Your task to perform on an android device: turn off priority inbox in the gmail app Image 0: 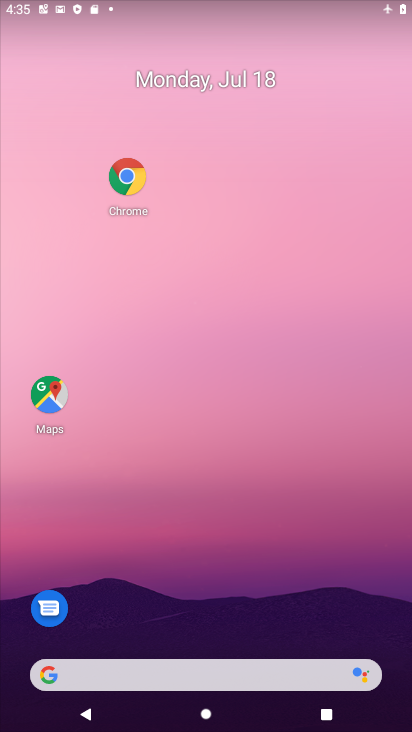
Step 0: drag from (265, 584) to (339, 383)
Your task to perform on an android device: turn off priority inbox in the gmail app Image 1: 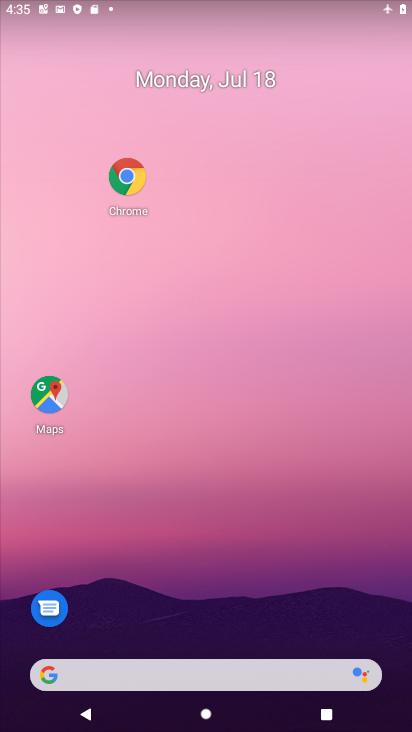
Step 1: click (305, 168)
Your task to perform on an android device: turn off priority inbox in the gmail app Image 2: 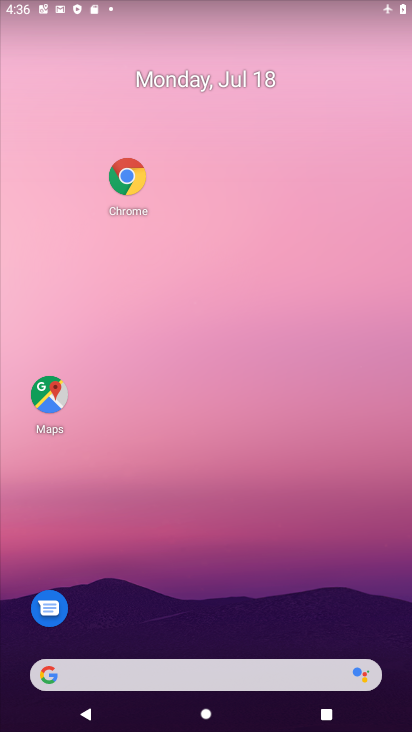
Step 2: drag from (255, 471) to (333, 58)
Your task to perform on an android device: turn off priority inbox in the gmail app Image 3: 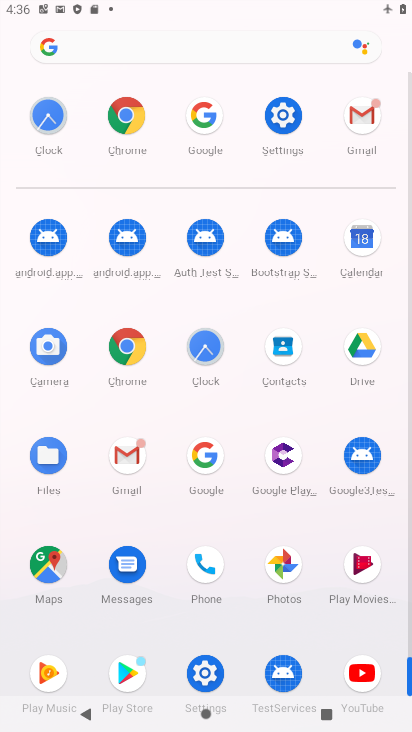
Step 3: click (359, 142)
Your task to perform on an android device: turn off priority inbox in the gmail app Image 4: 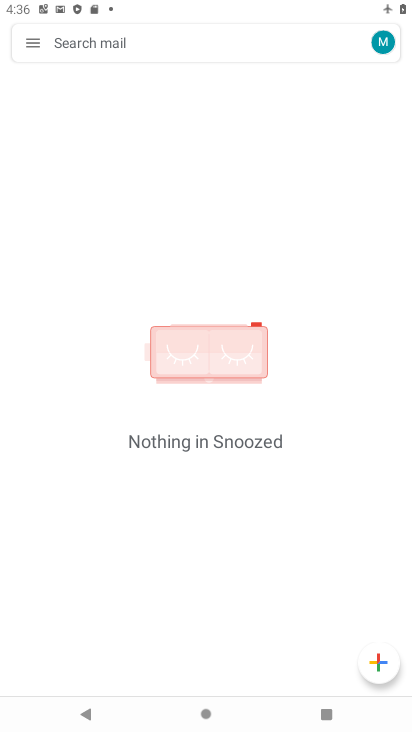
Step 4: click (28, 43)
Your task to perform on an android device: turn off priority inbox in the gmail app Image 5: 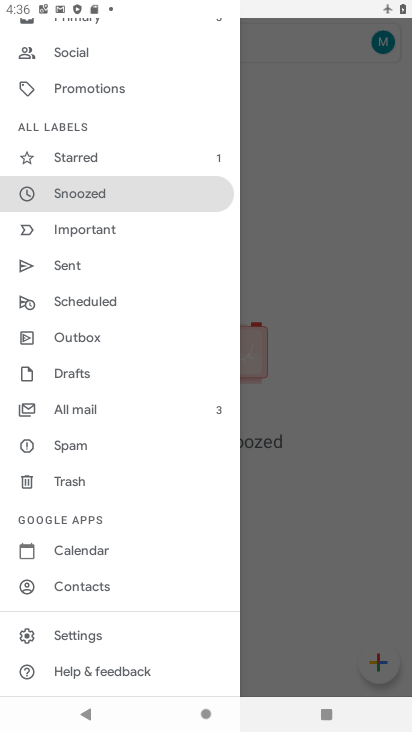
Step 5: click (86, 640)
Your task to perform on an android device: turn off priority inbox in the gmail app Image 6: 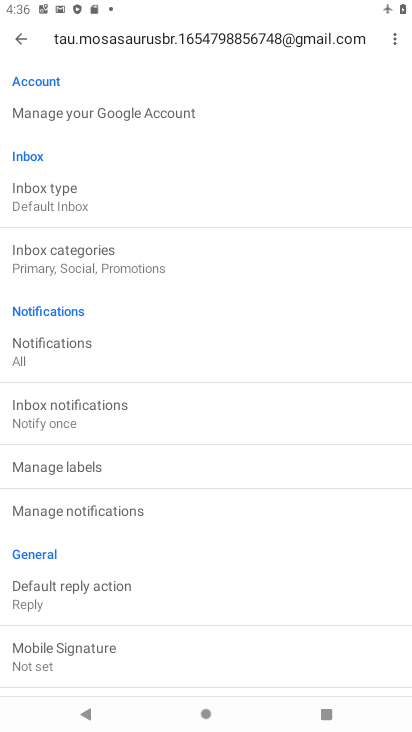
Step 6: drag from (192, 386) to (275, 133)
Your task to perform on an android device: turn off priority inbox in the gmail app Image 7: 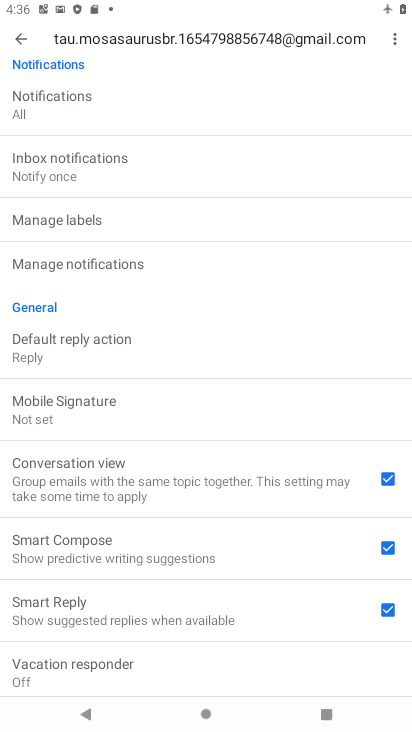
Step 7: click (231, 289)
Your task to perform on an android device: turn off priority inbox in the gmail app Image 8: 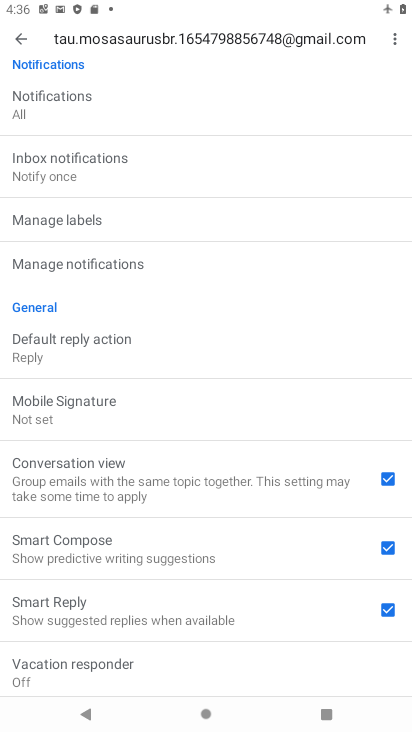
Step 8: drag from (152, 556) to (204, 335)
Your task to perform on an android device: turn off priority inbox in the gmail app Image 9: 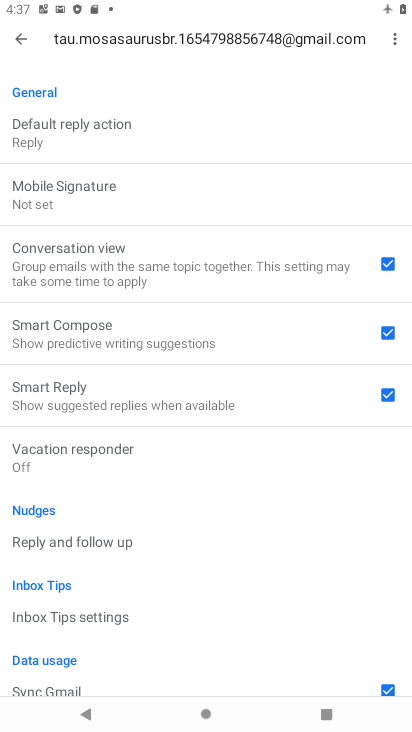
Step 9: drag from (132, 208) to (85, 665)
Your task to perform on an android device: turn off priority inbox in the gmail app Image 10: 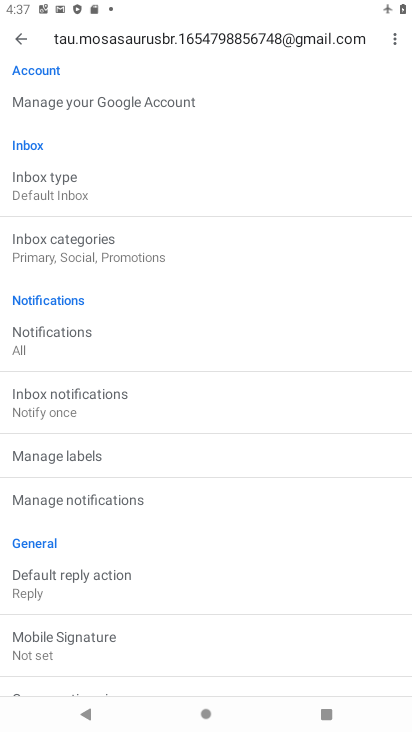
Step 10: drag from (146, 273) to (127, 468)
Your task to perform on an android device: turn off priority inbox in the gmail app Image 11: 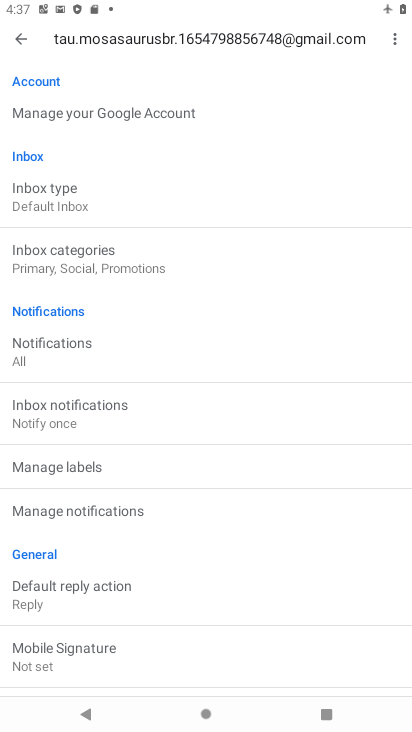
Step 11: drag from (115, 224) to (83, 606)
Your task to perform on an android device: turn off priority inbox in the gmail app Image 12: 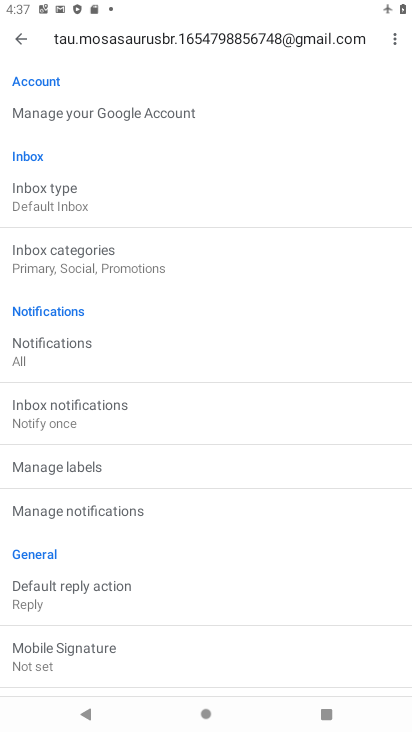
Step 12: click (91, 207)
Your task to perform on an android device: turn off priority inbox in the gmail app Image 13: 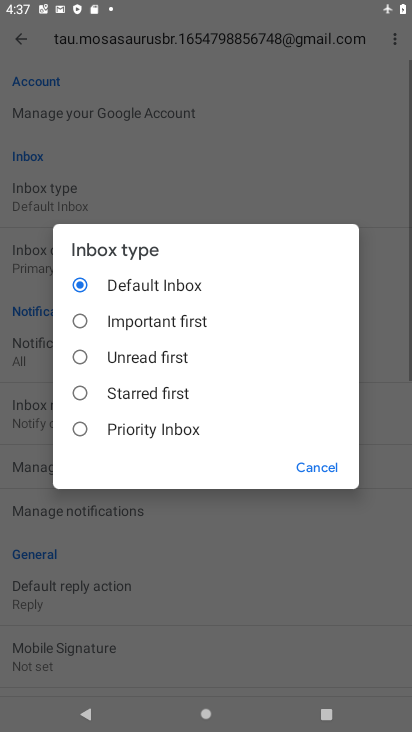
Step 13: task complete